Your task to perform on an android device: Open the calendar and show me this week's events? Image 0: 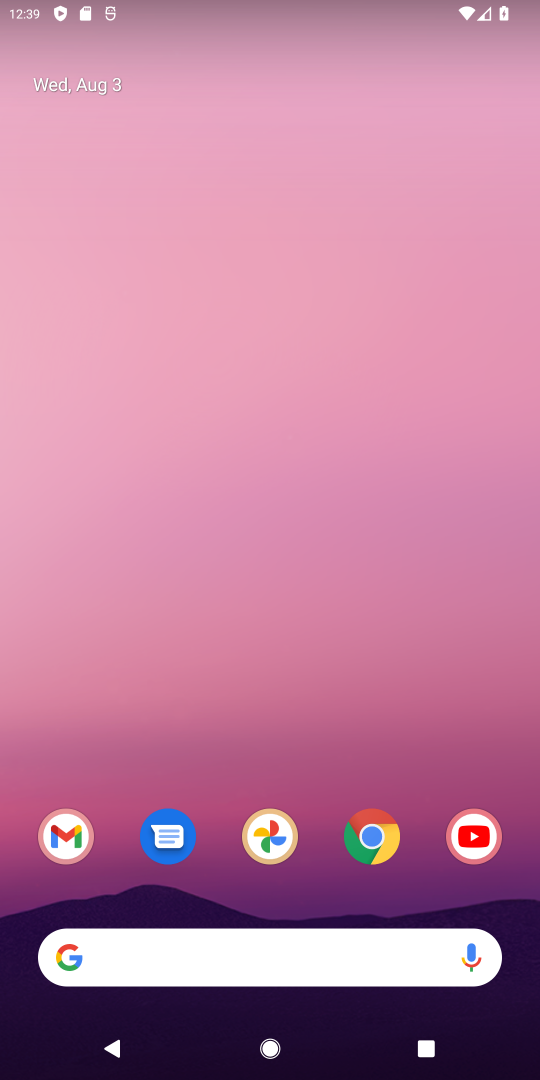
Step 0: drag from (208, 893) to (237, 259)
Your task to perform on an android device: Open the calendar and show me this week's events? Image 1: 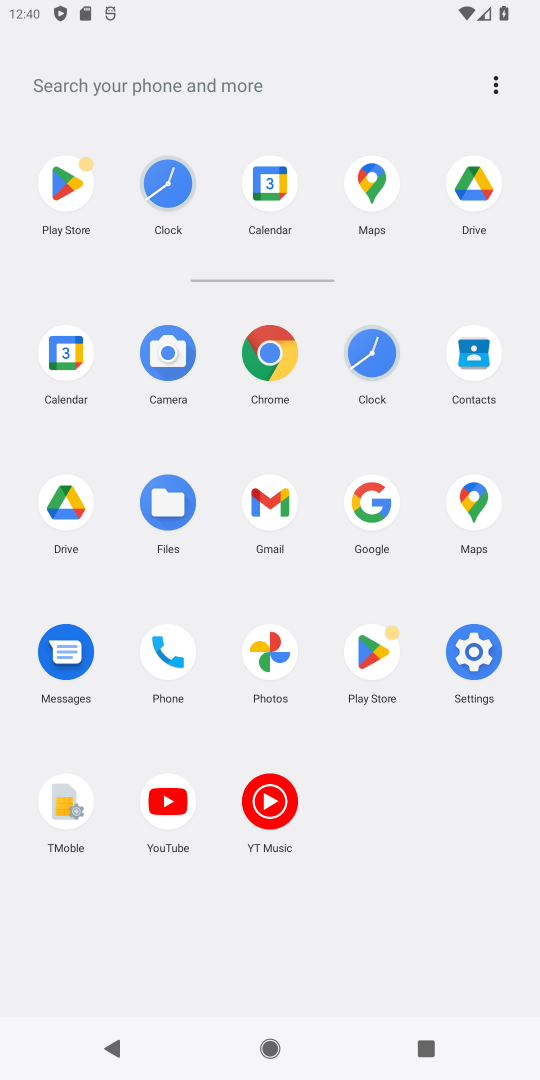
Step 1: click (55, 363)
Your task to perform on an android device: Open the calendar and show me this week's events? Image 2: 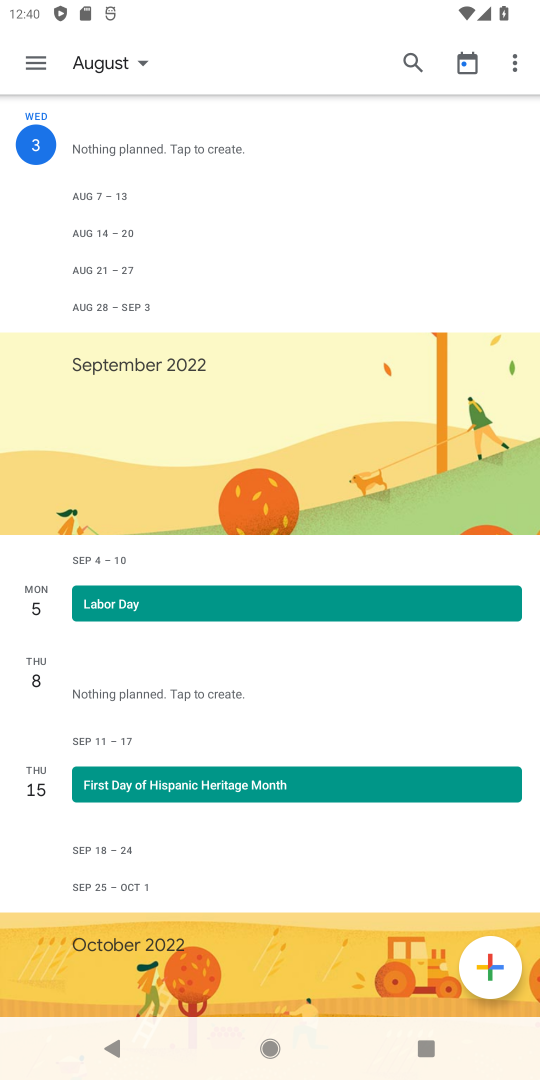
Step 2: click (114, 61)
Your task to perform on an android device: Open the calendar and show me this week's events? Image 3: 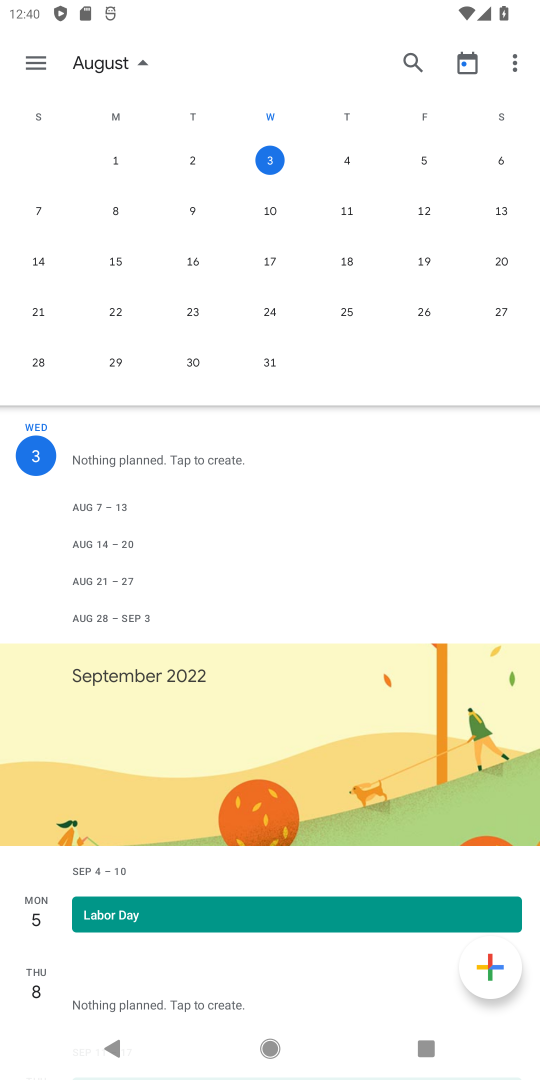
Step 3: click (495, 160)
Your task to perform on an android device: Open the calendar and show me this week's events? Image 4: 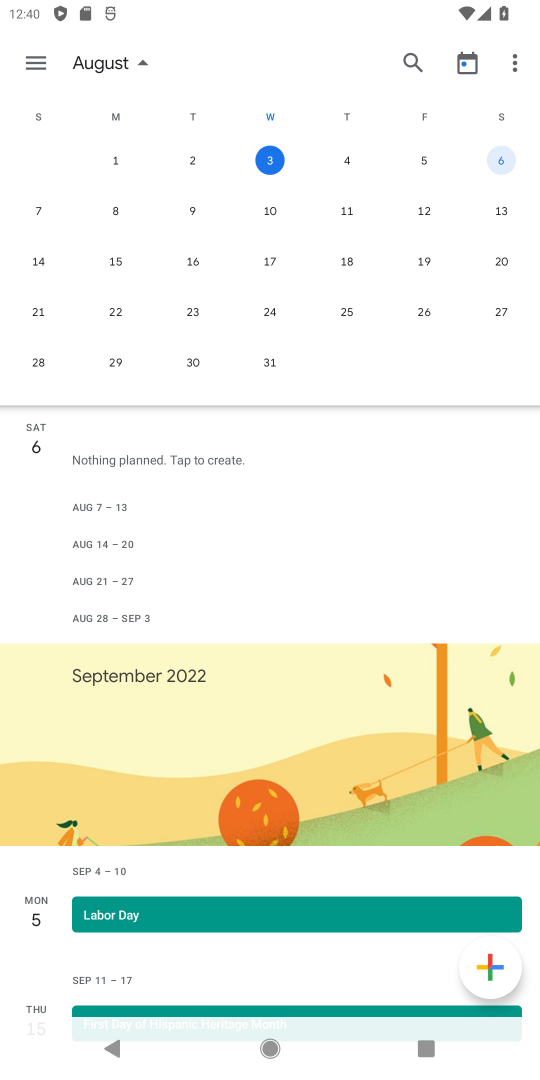
Step 4: click (263, 157)
Your task to perform on an android device: Open the calendar and show me this week's events? Image 5: 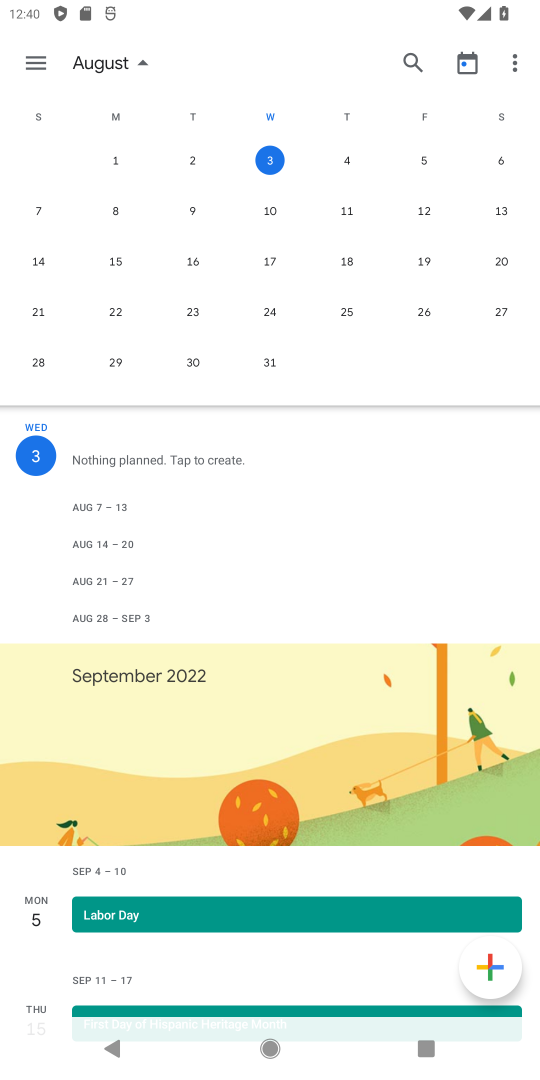
Step 5: click (347, 168)
Your task to perform on an android device: Open the calendar and show me this week's events? Image 6: 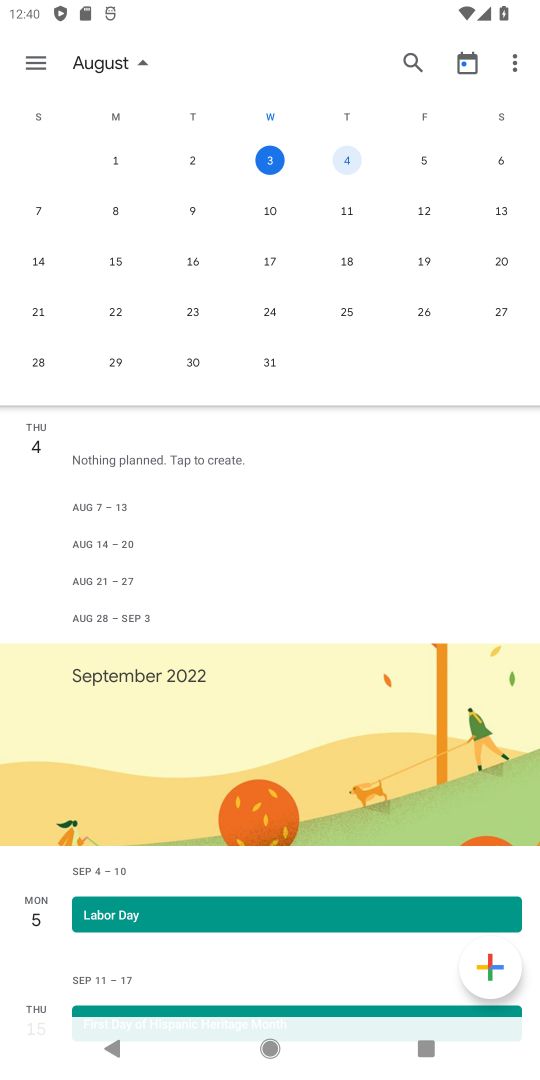
Step 6: task complete